Your task to perform on an android device: open a bookmark in the chrome app Image 0: 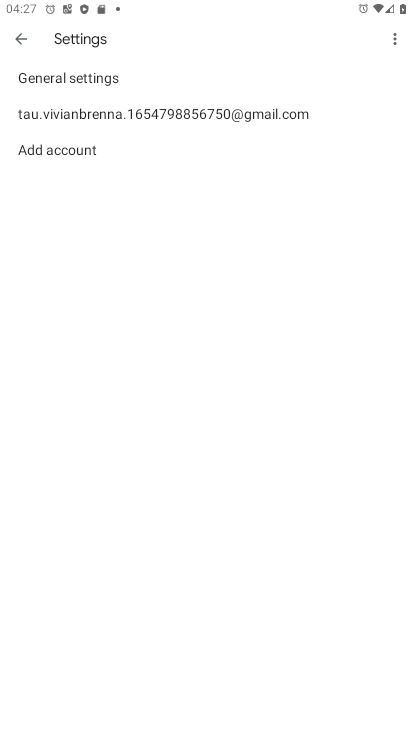
Step 0: press home button
Your task to perform on an android device: open a bookmark in the chrome app Image 1: 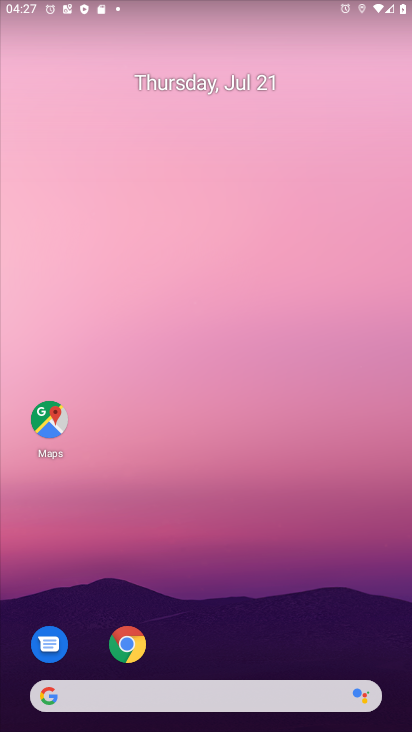
Step 1: click (127, 645)
Your task to perform on an android device: open a bookmark in the chrome app Image 2: 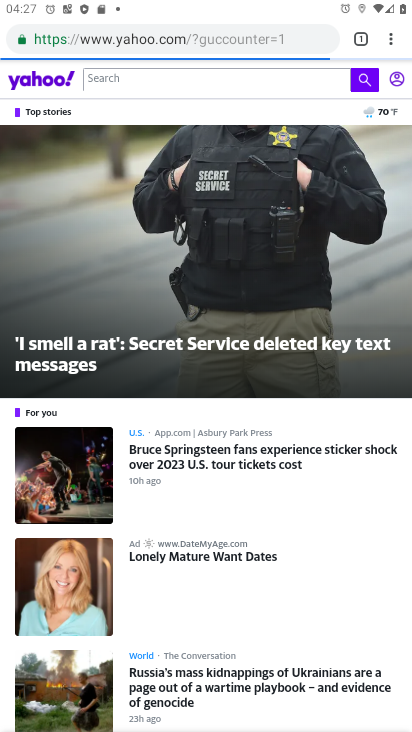
Step 2: click (391, 43)
Your task to perform on an android device: open a bookmark in the chrome app Image 3: 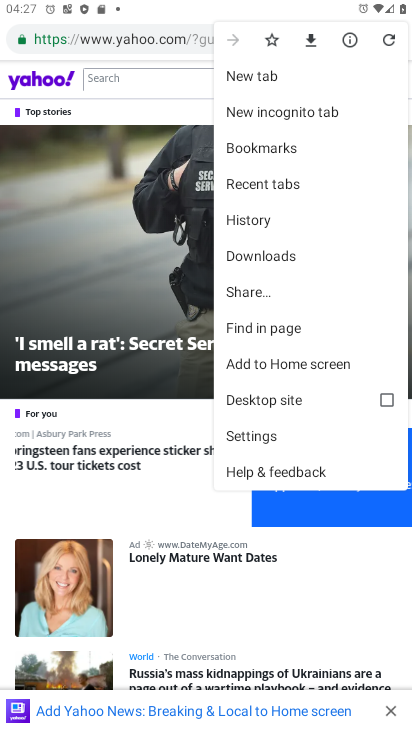
Step 3: click (260, 155)
Your task to perform on an android device: open a bookmark in the chrome app Image 4: 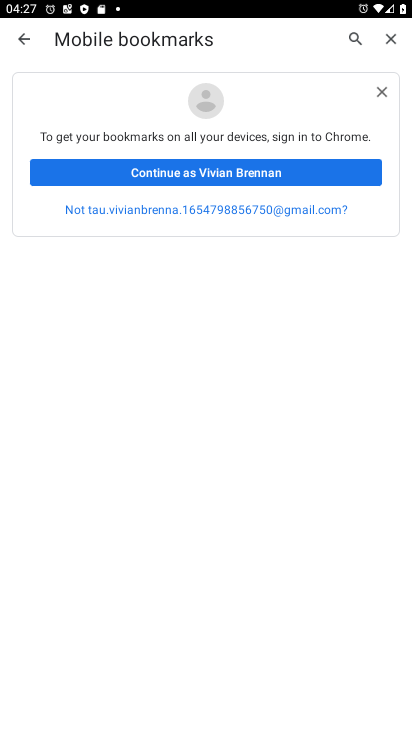
Step 4: click (232, 174)
Your task to perform on an android device: open a bookmark in the chrome app Image 5: 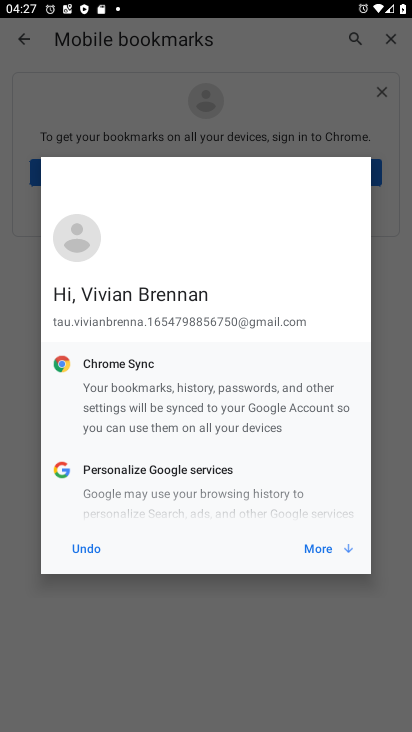
Step 5: click (323, 553)
Your task to perform on an android device: open a bookmark in the chrome app Image 6: 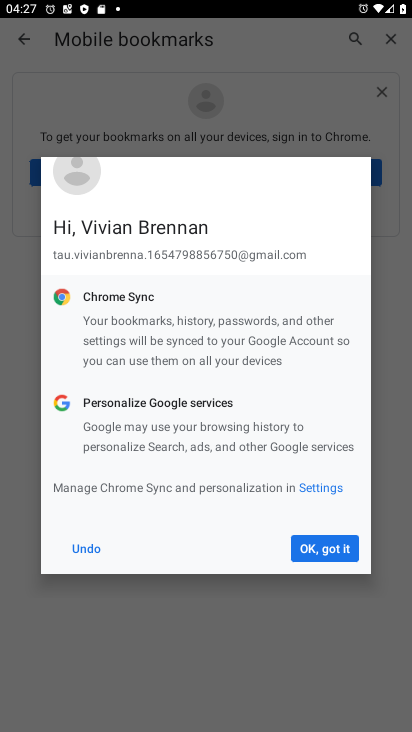
Step 6: click (323, 552)
Your task to perform on an android device: open a bookmark in the chrome app Image 7: 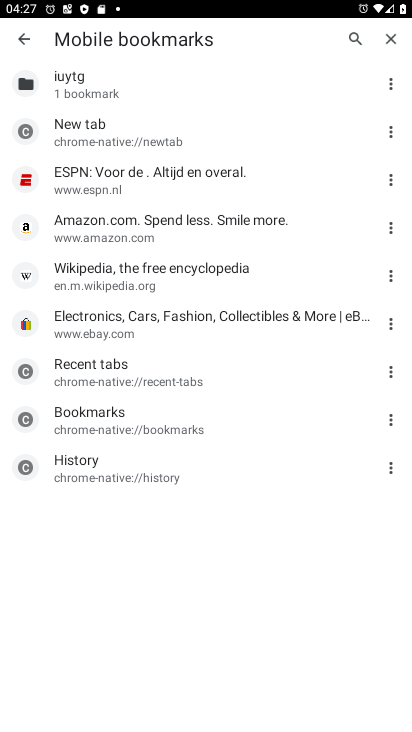
Step 7: click (85, 190)
Your task to perform on an android device: open a bookmark in the chrome app Image 8: 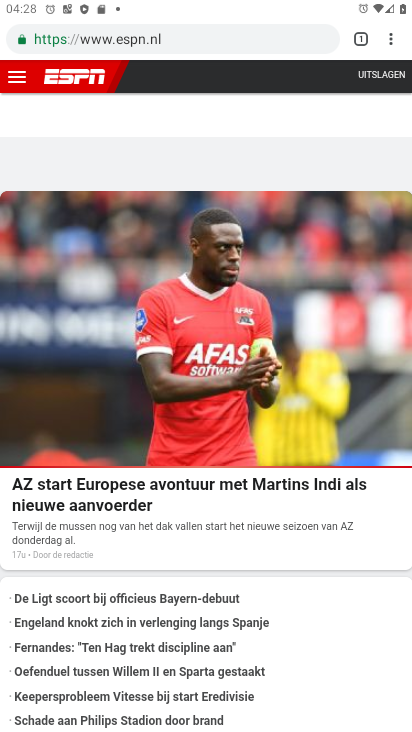
Step 8: task complete